Your task to perform on an android device: show emergency info Image 0: 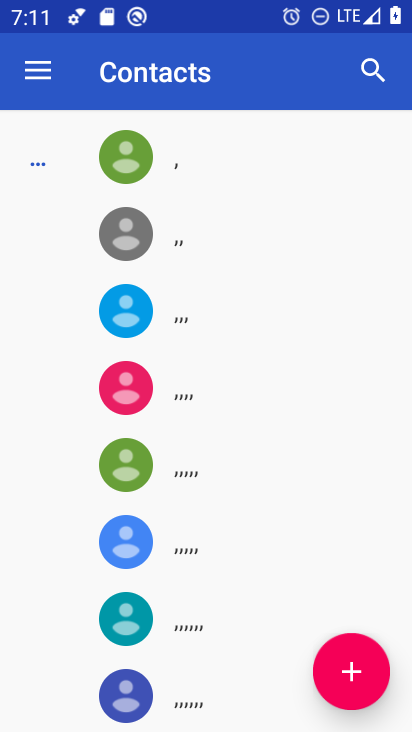
Step 0: press home button
Your task to perform on an android device: show emergency info Image 1: 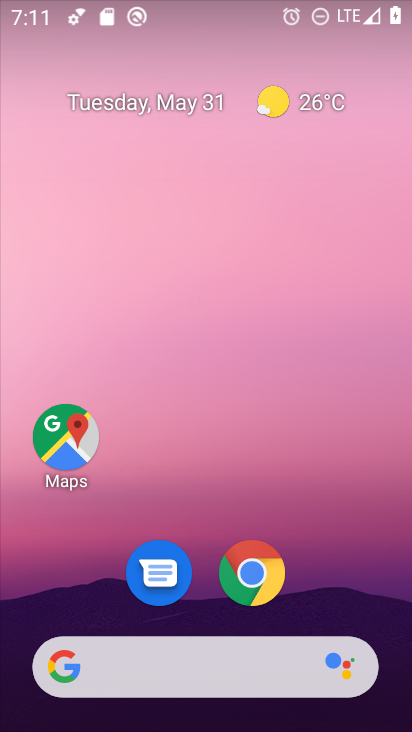
Step 1: drag from (395, 627) to (287, 52)
Your task to perform on an android device: show emergency info Image 2: 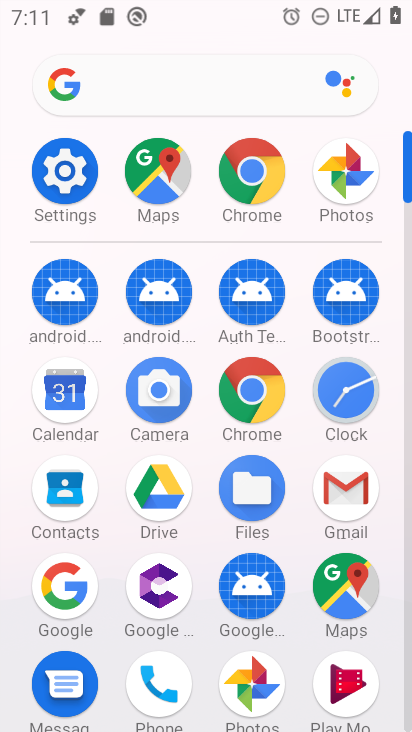
Step 2: click (61, 182)
Your task to perform on an android device: show emergency info Image 3: 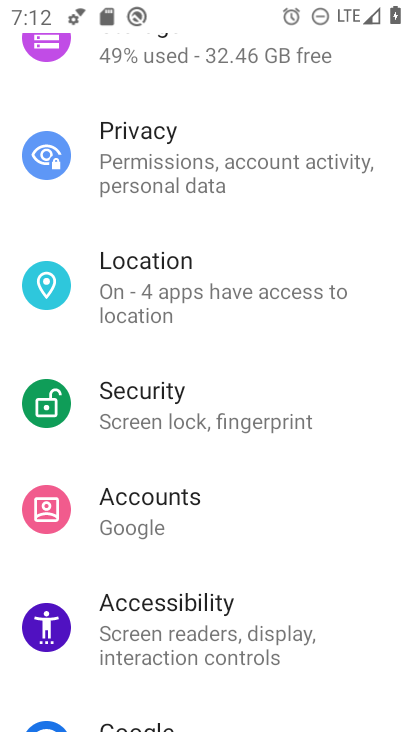
Step 3: drag from (222, 652) to (231, 62)
Your task to perform on an android device: show emergency info Image 4: 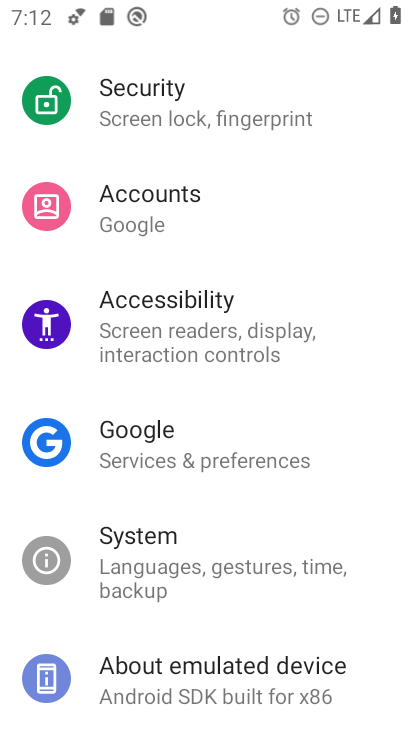
Step 4: click (242, 649)
Your task to perform on an android device: show emergency info Image 5: 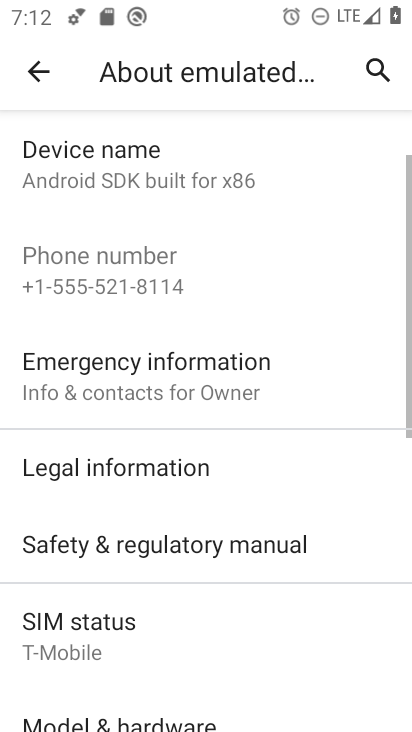
Step 5: click (206, 405)
Your task to perform on an android device: show emergency info Image 6: 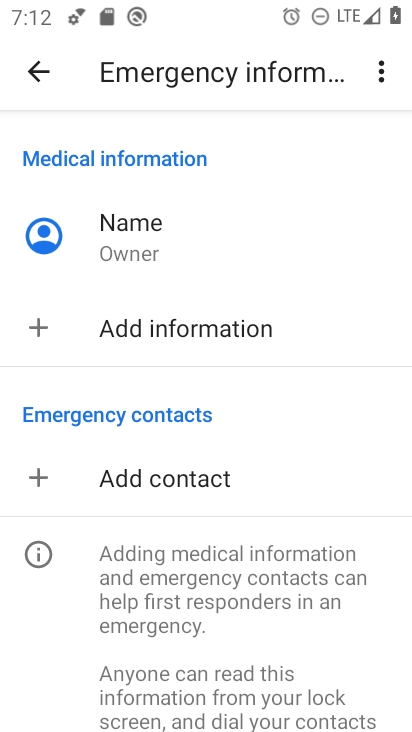
Step 6: task complete